Your task to perform on an android device: Go to battery settings Image 0: 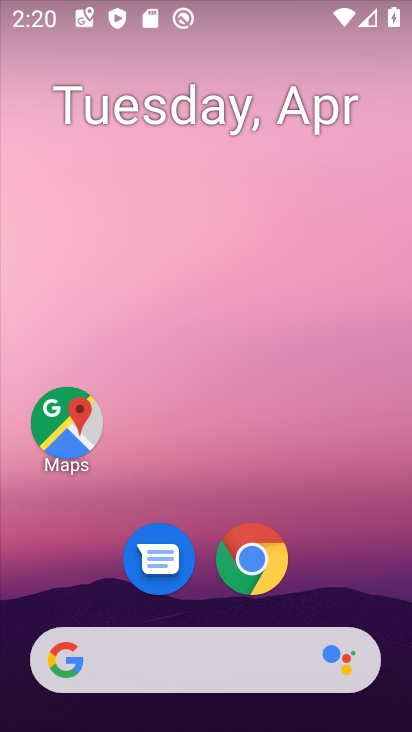
Step 0: drag from (70, 604) to (329, 61)
Your task to perform on an android device: Go to battery settings Image 1: 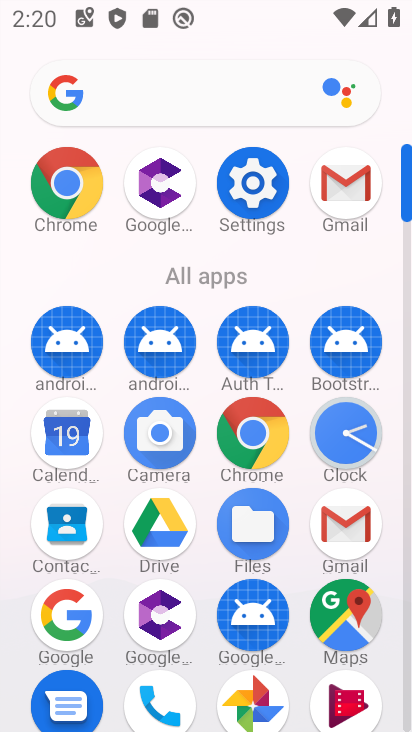
Step 1: drag from (176, 622) to (297, 262)
Your task to perform on an android device: Go to battery settings Image 2: 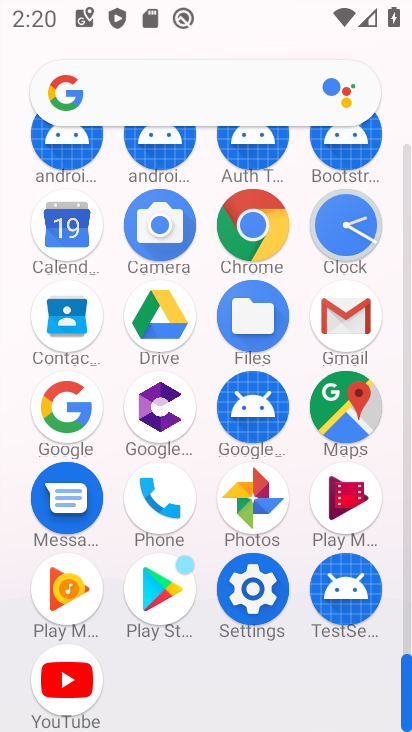
Step 2: click (253, 659)
Your task to perform on an android device: Go to battery settings Image 3: 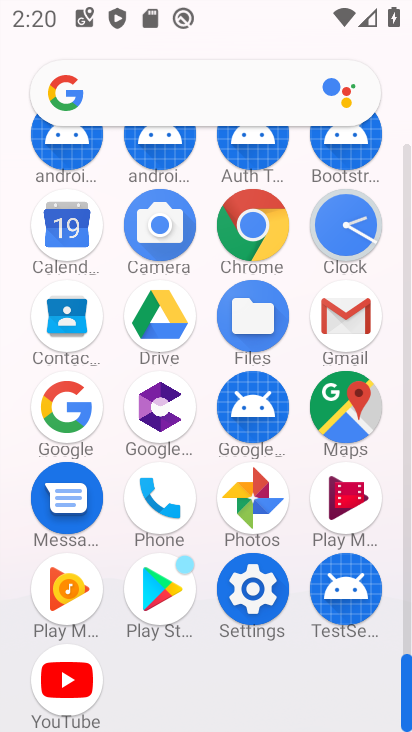
Step 3: click (260, 608)
Your task to perform on an android device: Go to battery settings Image 4: 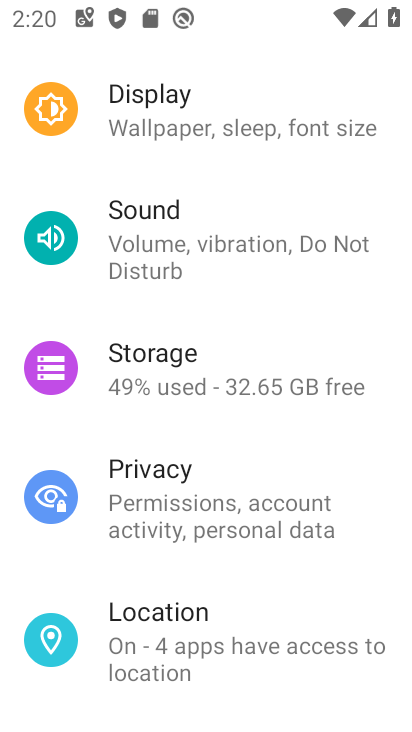
Step 4: drag from (241, 341) to (162, 585)
Your task to perform on an android device: Go to battery settings Image 5: 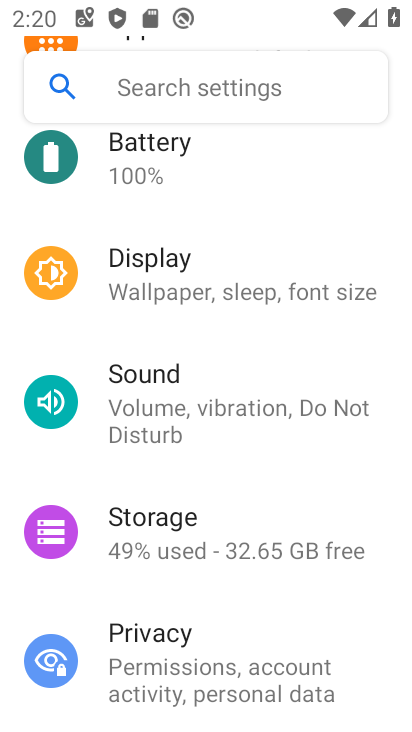
Step 5: drag from (220, 334) to (149, 564)
Your task to perform on an android device: Go to battery settings Image 6: 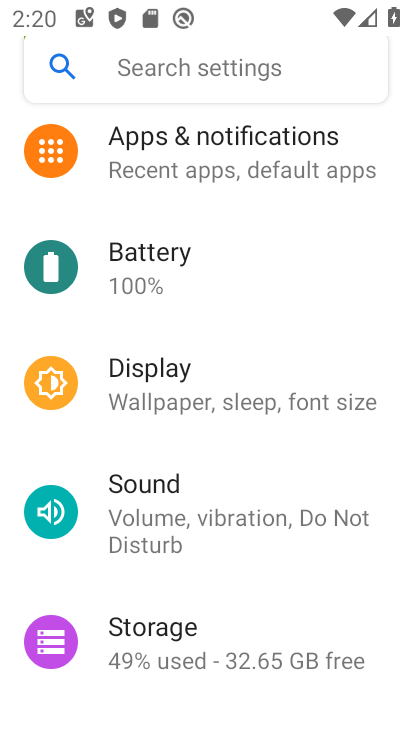
Step 6: drag from (235, 275) to (160, 553)
Your task to perform on an android device: Go to battery settings Image 7: 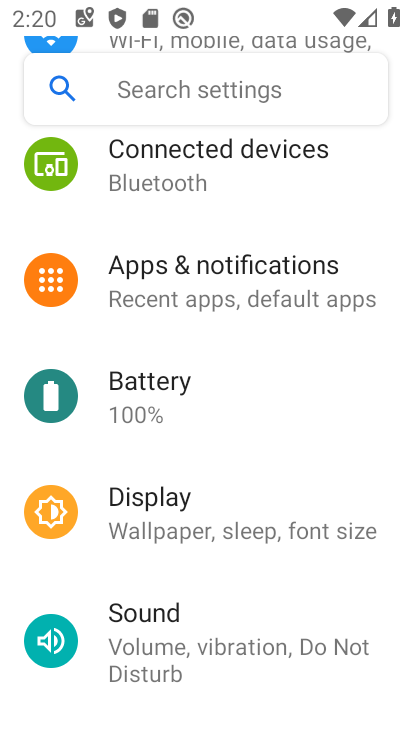
Step 7: click (182, 408)
Your task to perform on an android device: Go to battery settings Image 8: 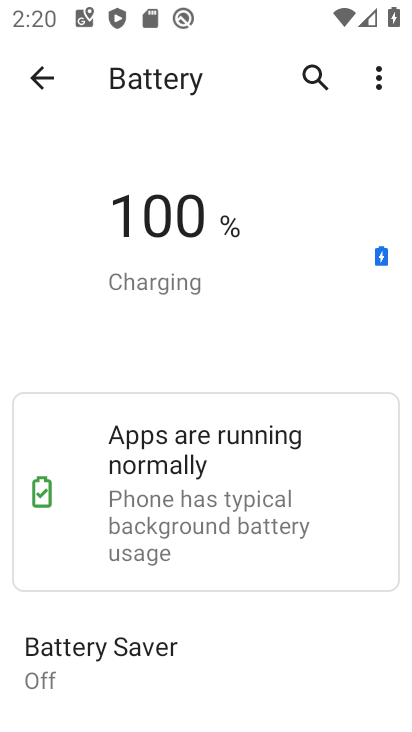
Step 8: task complete